Your task to perform on an android device: Find coffee shops on Maps Image 0: 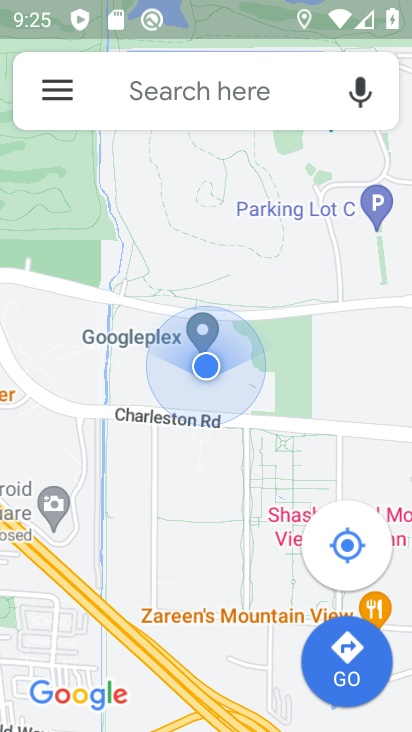
Step 0: click (195, 97)
Your task to perform on an android device: Find coffee shops on Maps Image 1: 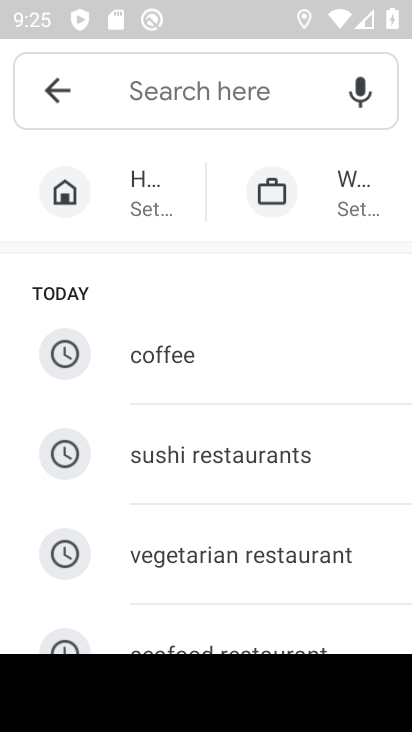
Step 1: type "coffee shops"
Your task to perform on an android device: Find coffee shops on Maps Image 2: 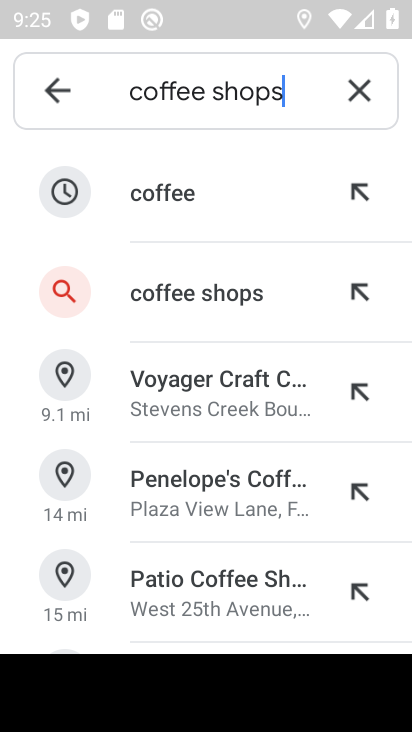
Step 2: click (221, 301)
Your task to perform on an android device: Find coffee shops on Maps Image 3: 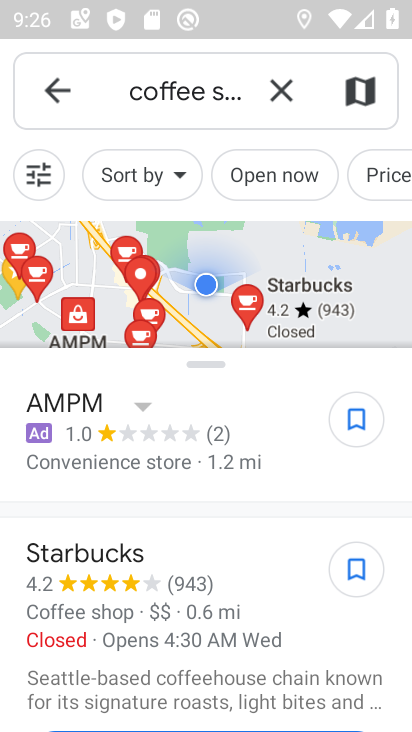
Step 3: task complete